Your task to perform on an android device: What's the weather going to be tomorrow? Image 0: 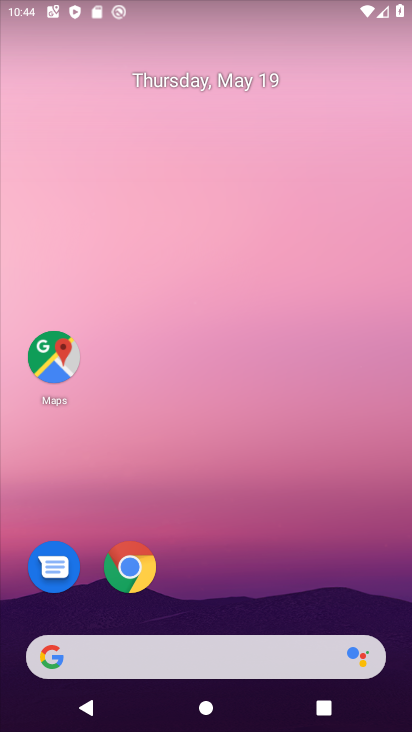
Step 0: drag from (11, 198) to (236, 201)
Your task to perform on an android device: What's the weather going to be tomorrow? Image 1: 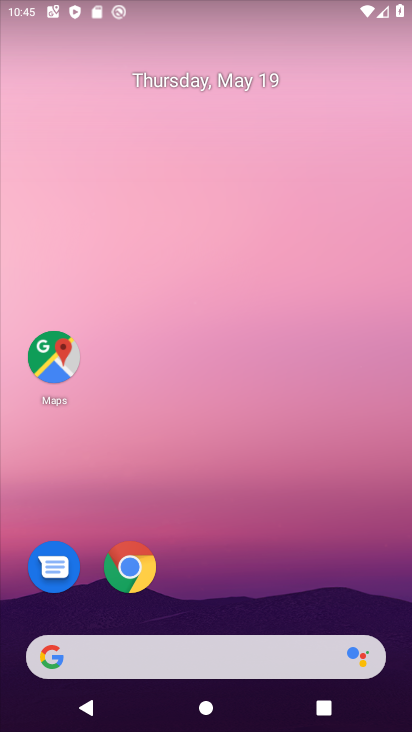
Step 1: drag from (12, 226) to (331, 236)
Your task to perform on an android device: What's the weather going to be tomorrow? Image 2: 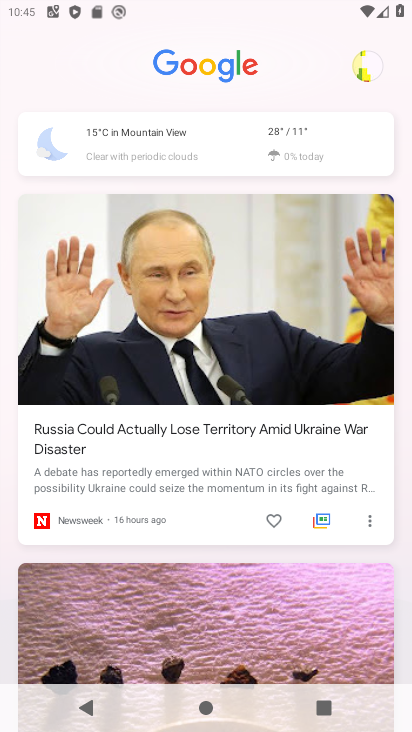
Step 2: click (290, 149)
Your task to perform on an android device: What's the weather going to be tomorrow? Image 3: 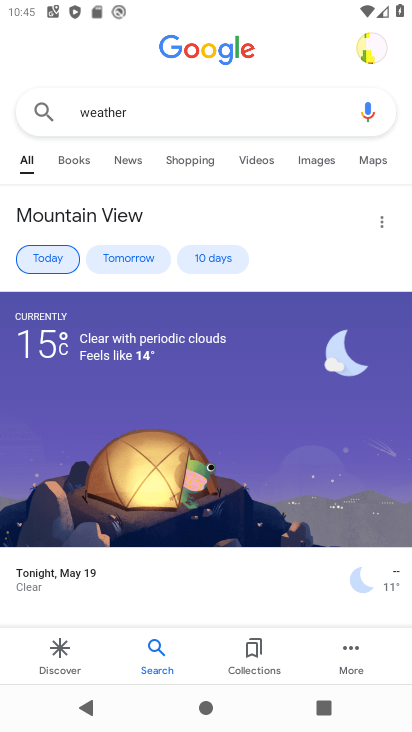
Step 3: click (119, 253)
Your task to perform on an android device: What's the weather going to be tomorrow? Image 4: 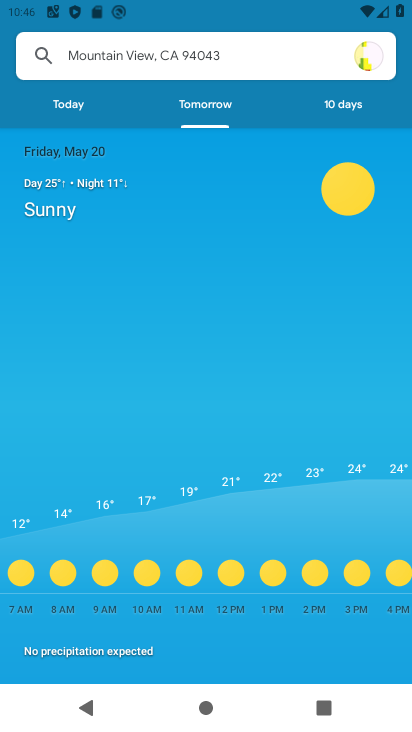
Step 4: task complete